Your task to perform on an android device: find snoozed emails in the gmail app Image 0: 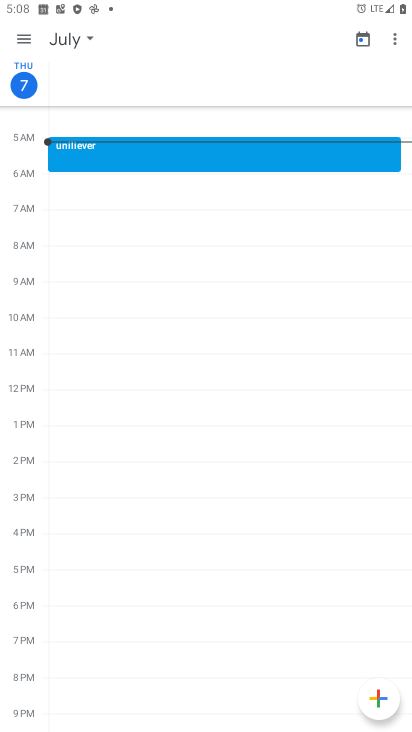
Step 0: press home button
Your task to perform on an android device: find snoozed emails in the gmail app Image 1: 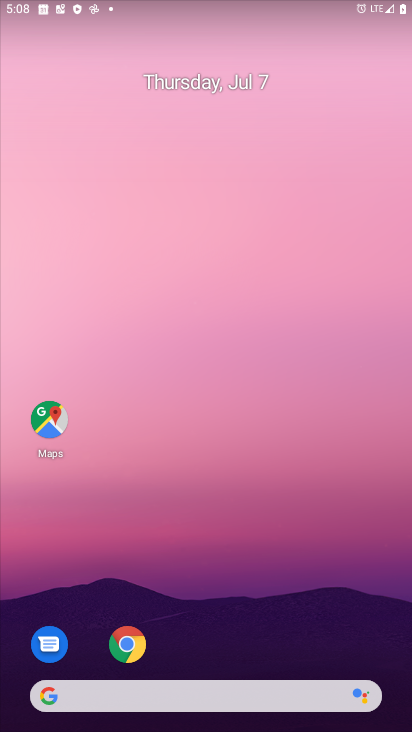
Step 1: drag from (252, 640) to (308, 81)
Your task to perform on an android device: find snoozed emails in the gmail app Image 2: 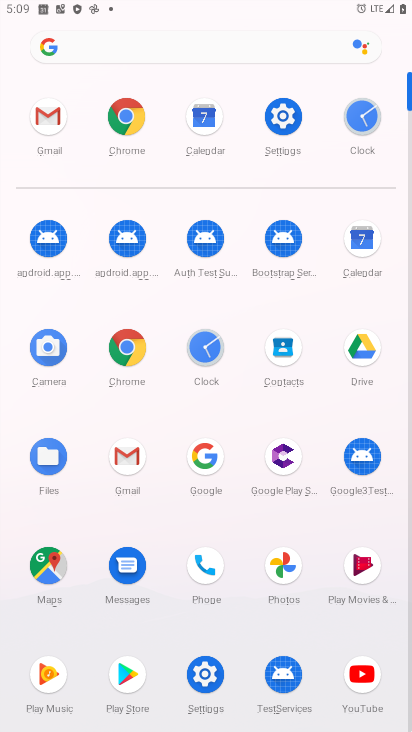
Step 2: click (49, 114)
Your task to perform on an android device: find snoozed emails in the gmail app Image 3: 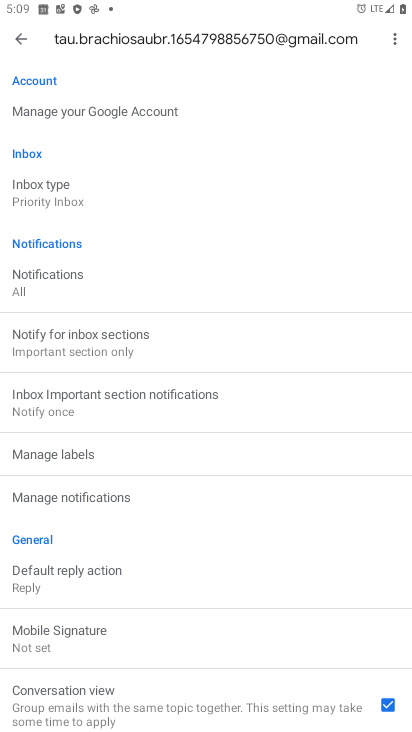
Step 3: press back button
Your task to perform on an android device: find snoozed emails in the gmail app Image 4: 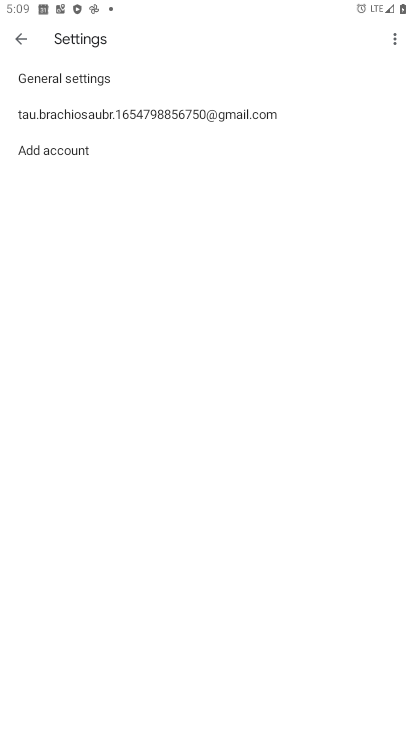
Step 4: press back button
Your task to perform on an android device: find snoozed emails in the gmail app Image 5: 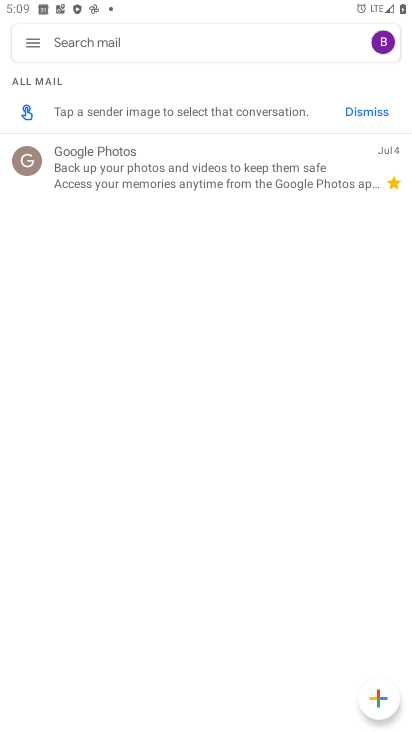
Step 5: click (37, 39)
Your task to perform on an android device: find snoozed emails in the gmail app Image 6: 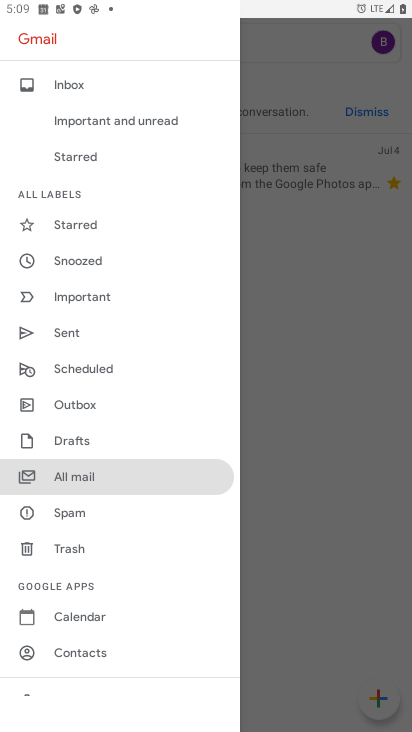
Step 6: click (86, 250)
Your task to perform on an android device: find snoozed emails in the gmail app Image 7: 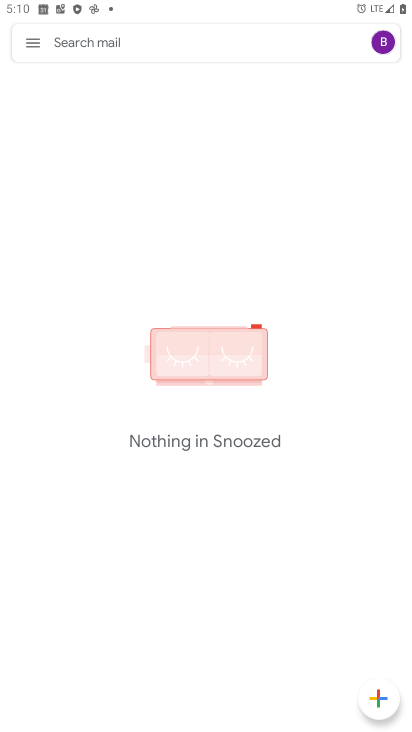
Step 7: task complete